Your task to perform on an android device: Open the calendar and show me this week's events? Image 0: 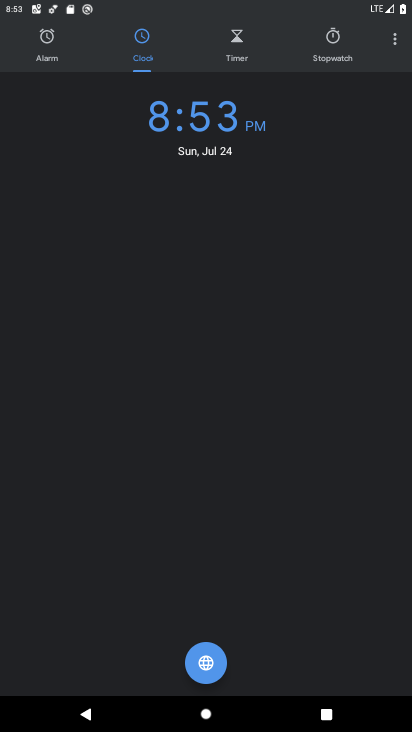
Step 0: press home button
Your task to perform on an android device: Open the calendar and show me this week's events? Image 1: 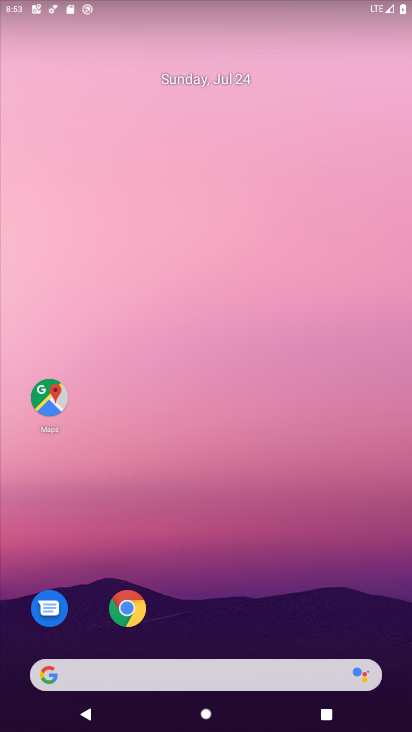
Step 1: drag from (323, 563) to (283, 193)
Your task to perform on an android device: Open the calendar and show me this week's events? Image 2: 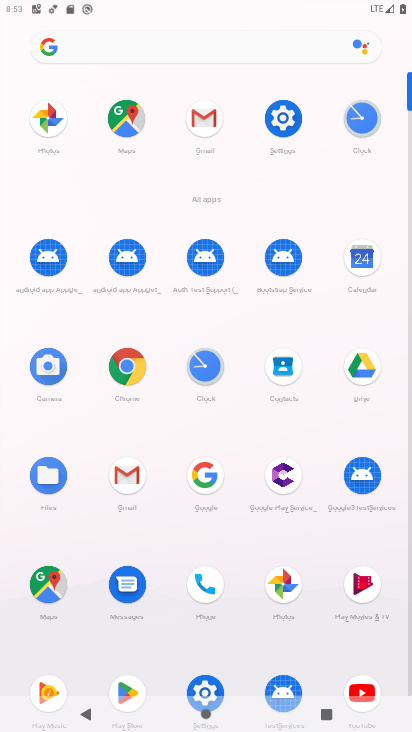
Step 2: click (363, 258)
Your task to perform on an android device: Open the calendar and show me this week's events? Image 3: 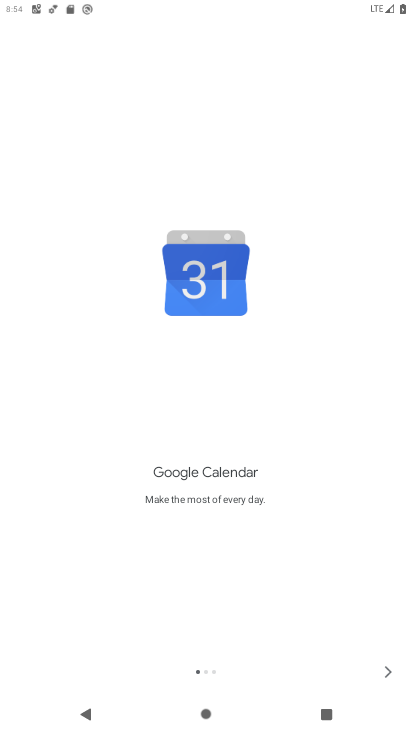
Step 3: click (381, 669)
Your task to perform on an android device: Open the calendar and show me this week's events? Image 4: 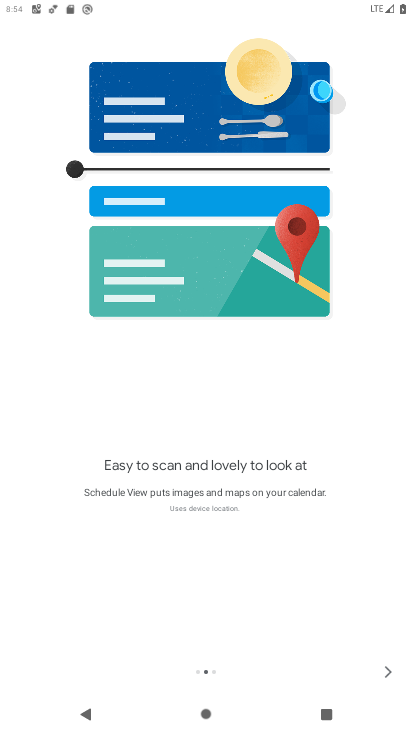
Step 4: click (381, 669)
Your task to perform on an android device: Open the calendar and show me this week's events? Image 5: 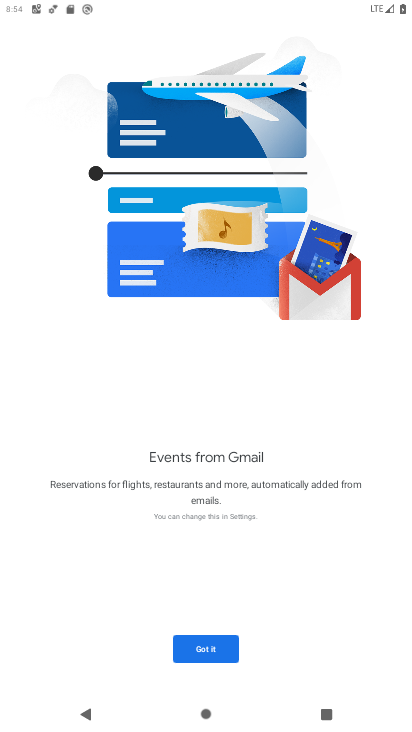
Step 5: click (196, 643)
Your task to perform on an android device: Open the calendar and show me this week's events? Image 6: 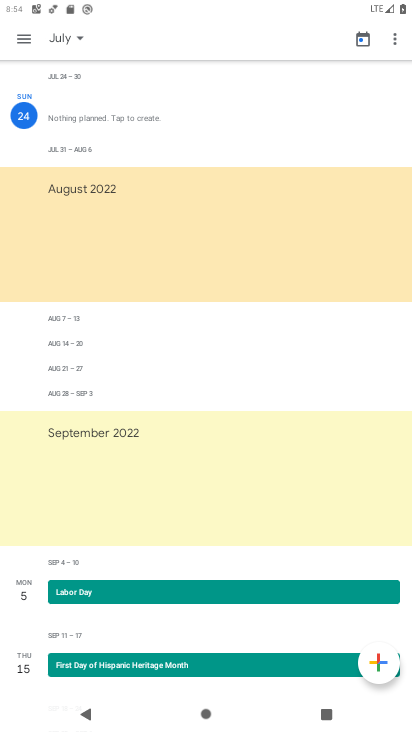
Step 6: click (75, 32)
Your task to perform on an android device: Open the calendar and show me this week's events? Image 7: 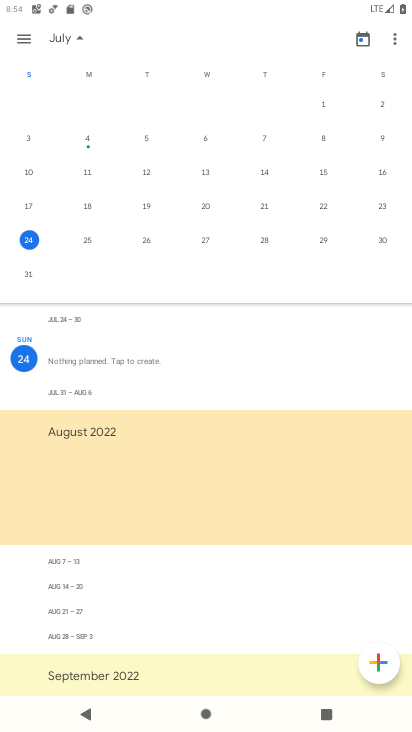
Step 7: click (80, 239)
Your task to perform on an android device: Open the calendar and show me this week's events? Image 8: 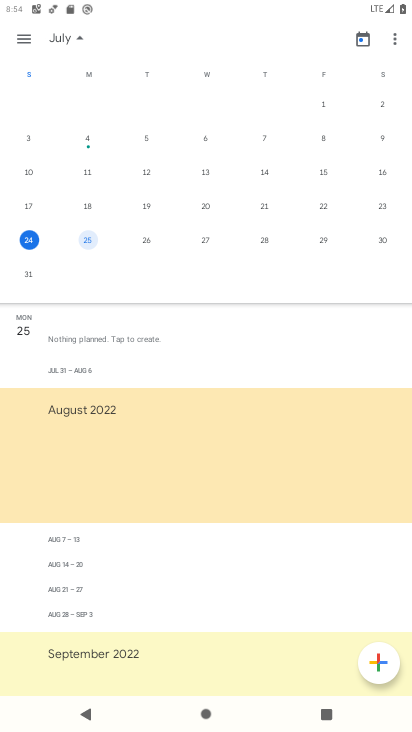
Step 8: click (152, 239)
Your task to perform on an android device: Open the calendar and show me this week's events? Image 9: 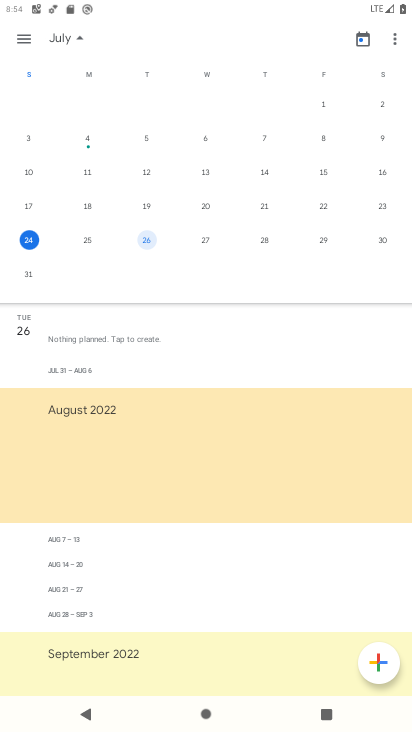
Step 9: click (222, 246)
Your task to perform on an android device: Open the calendar and show me this week's events? Image 10: 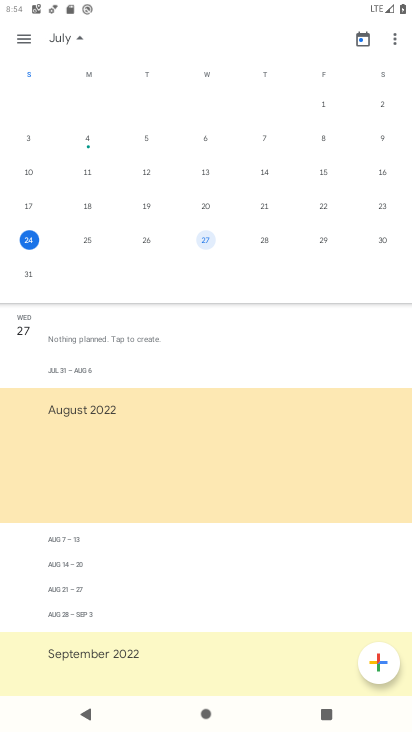
Step 10: click (267, 244)
Your task to perform on an android device: Open the calendar and show me this week's events? Image 11: 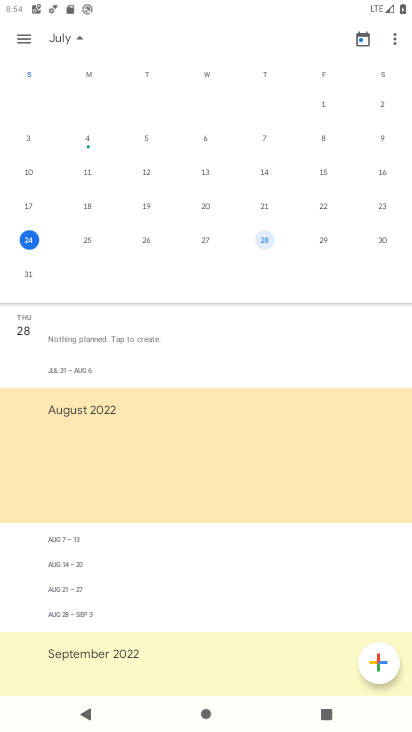
Step 11: click (338, 244)
Your task to perform on an android device: Open the calendar and show me this week's events? Image 12: 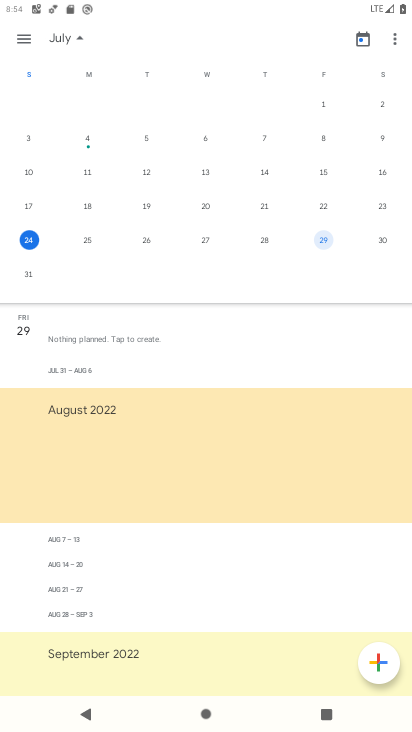
Step 12: click (379, 247)
Your task to perform on an android device: Open the calendar and show me this week's events? Image 13: 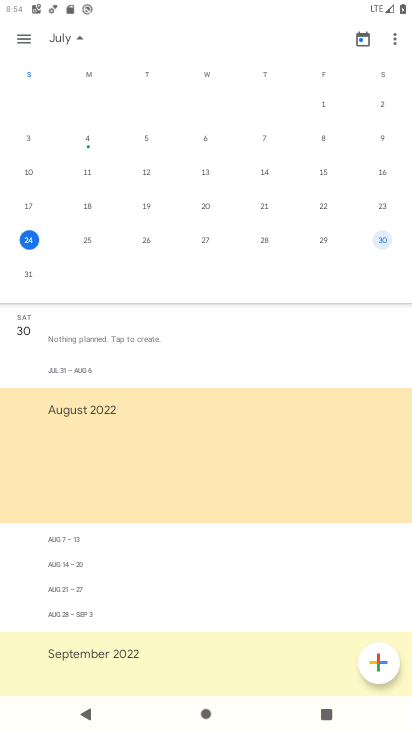
Step 13: task complete